Your task to perform on an android device: all mails in gmail Image 0: 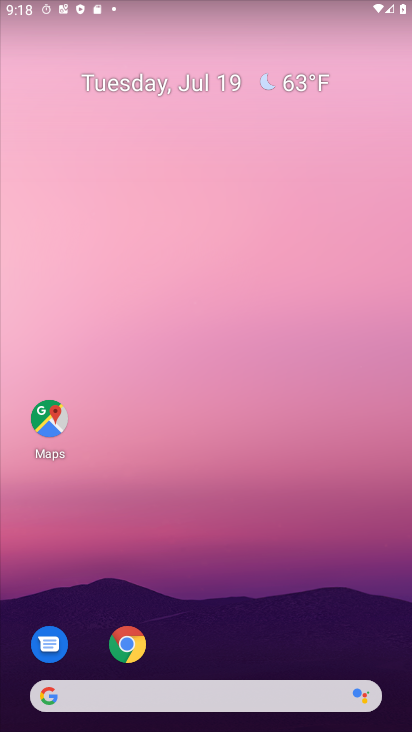
Step 0: drag from (237, 569) to (195, 205)
Your task to perform on an android device: all mails in gmail Image 1: 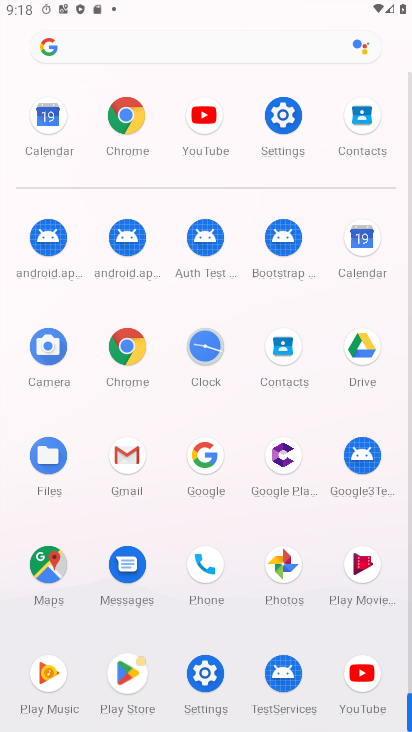
Step 1: drag from (138, 591) to (148, 193)
Your task to perform on an android device: all mails in gmail Image 2: 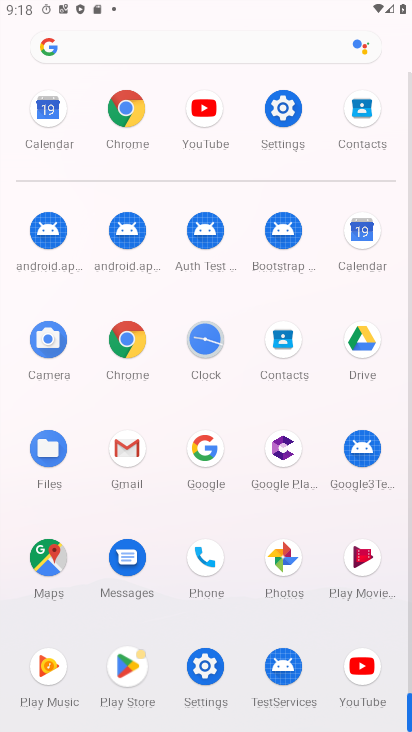
Step 2: click (132, 460)
Your task to perform on an android device: all mails in gmail Image 3: 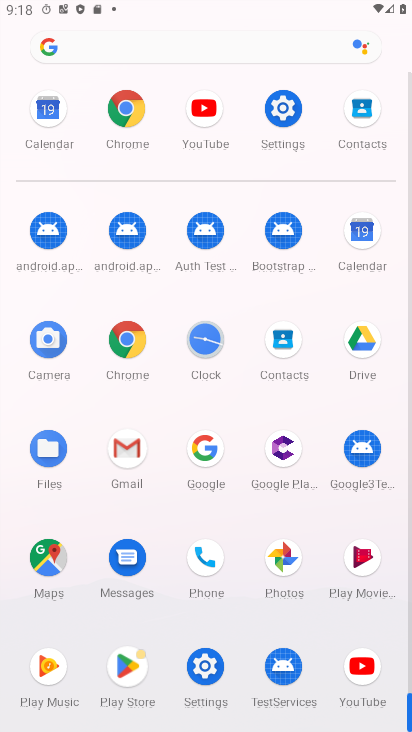
Step 3: click (131, 462)
Your task to perform on an android device: all mails in gmail Image 4: 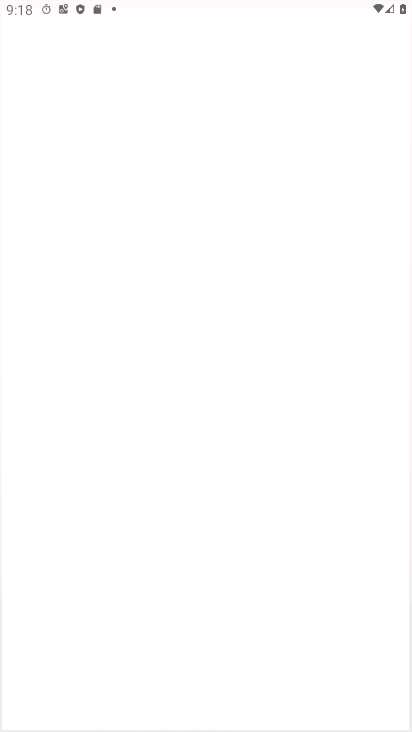
Step 4: click (131, 463)
Your task to perform on an android device: all mails in gmail Image 5: 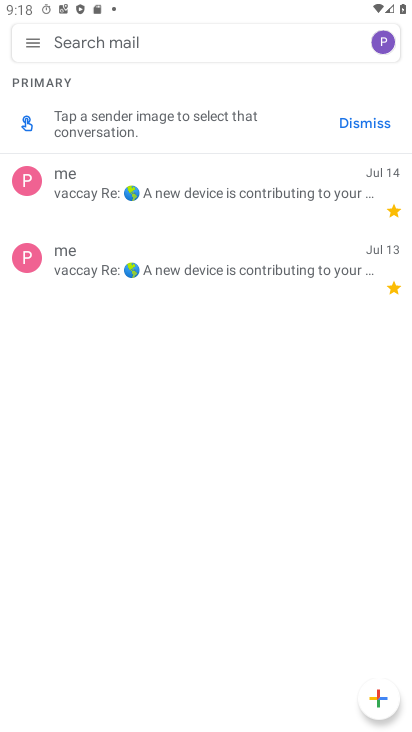
Step 5: task complete